Your task to perform on an android device: turn off notifications in google photos Image 0: 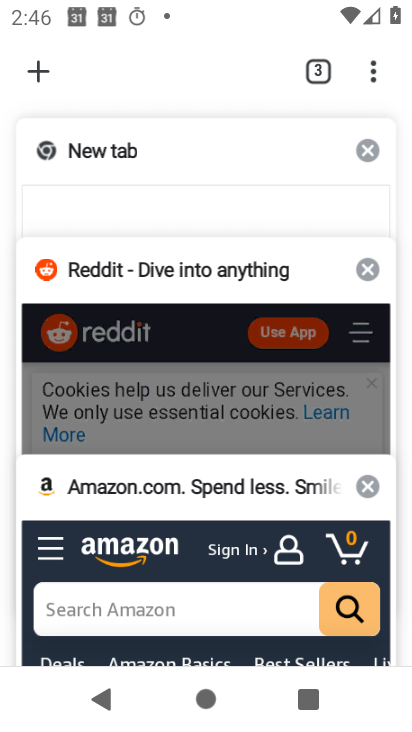
Step 0: press home button
Your task to perform on an android device: turn off notifications in google photos Image 1: 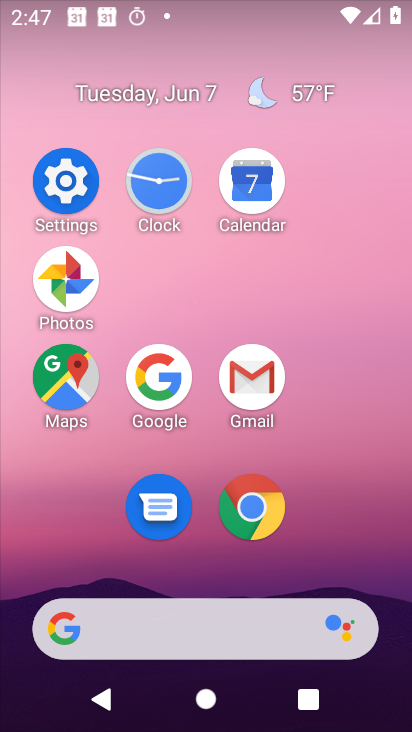
Step 1: click (62, 290)
Your task to perform on an android device: turn off notifications in google photos Image 2: 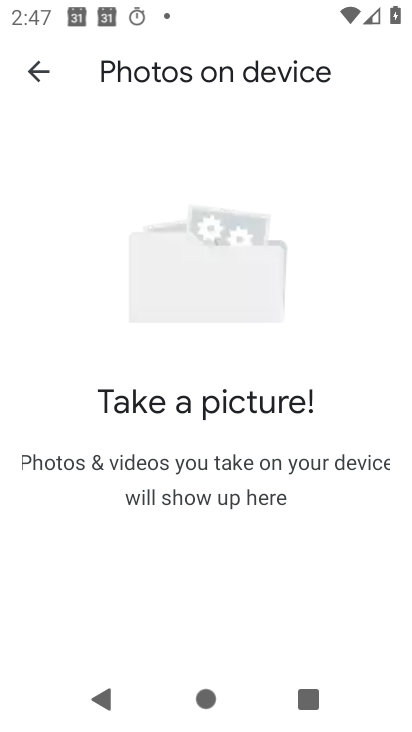
Step 2: click (40, 74)
Your task to perform on an android device: turn off notifications in google photos Image 3: 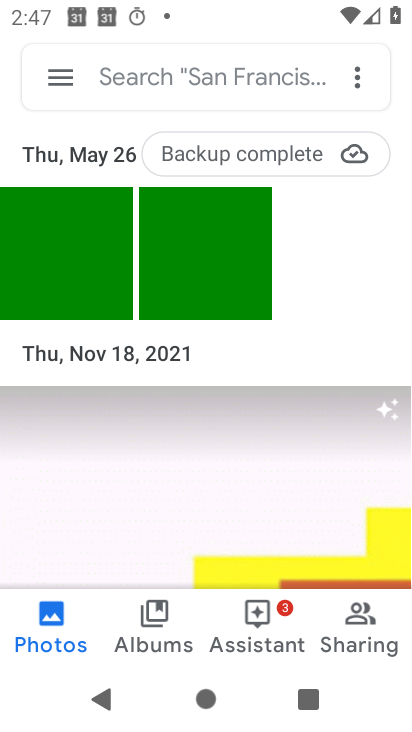
Step 3: click (40, 74)
Your task to perform on an android device: turn off notifications in google photos Image 4: 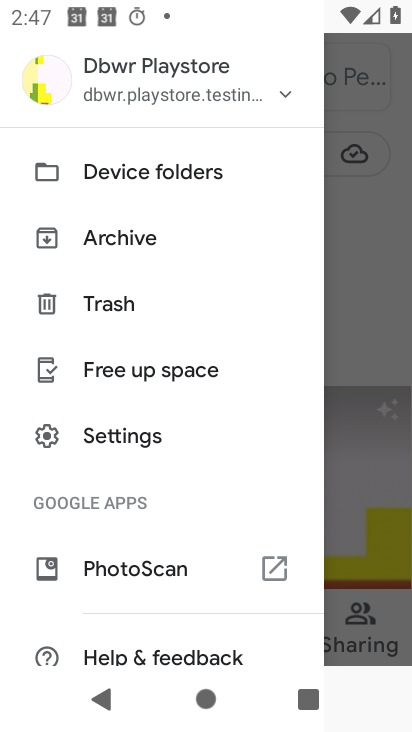
Step 4: click (182, 449)
Your task to perform on an android device: turn off notifications in google photos Image 5: 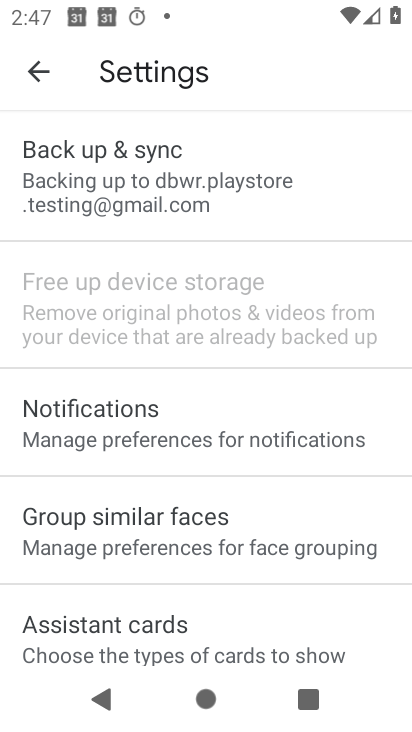
Step 5: click (178, 442)
Your task to perform on an android device: turn off notifications in google photos Image 6: 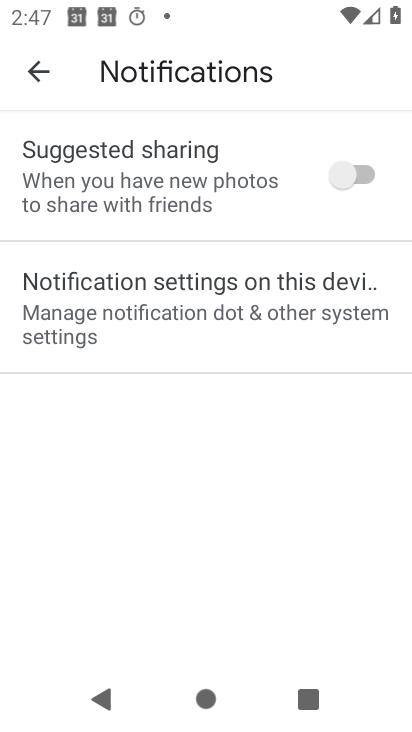
Step 6: click (310, 287)
Your task to perform on an android device: turn off notifications in google photos Image 7: 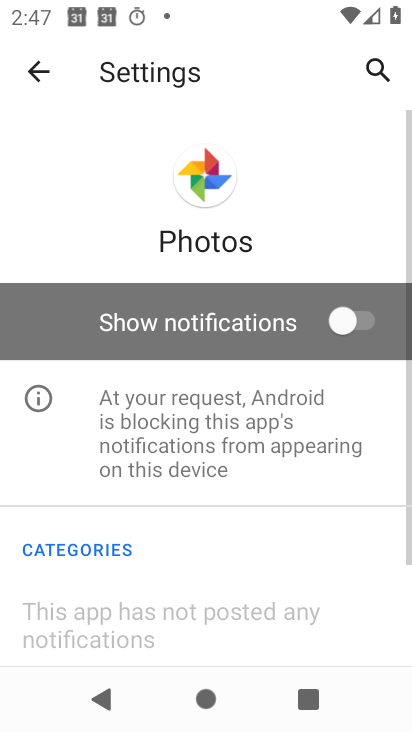
Step 7: task complete